Your task to perform on an android device: uninstall "Google Chrome" Image 0: 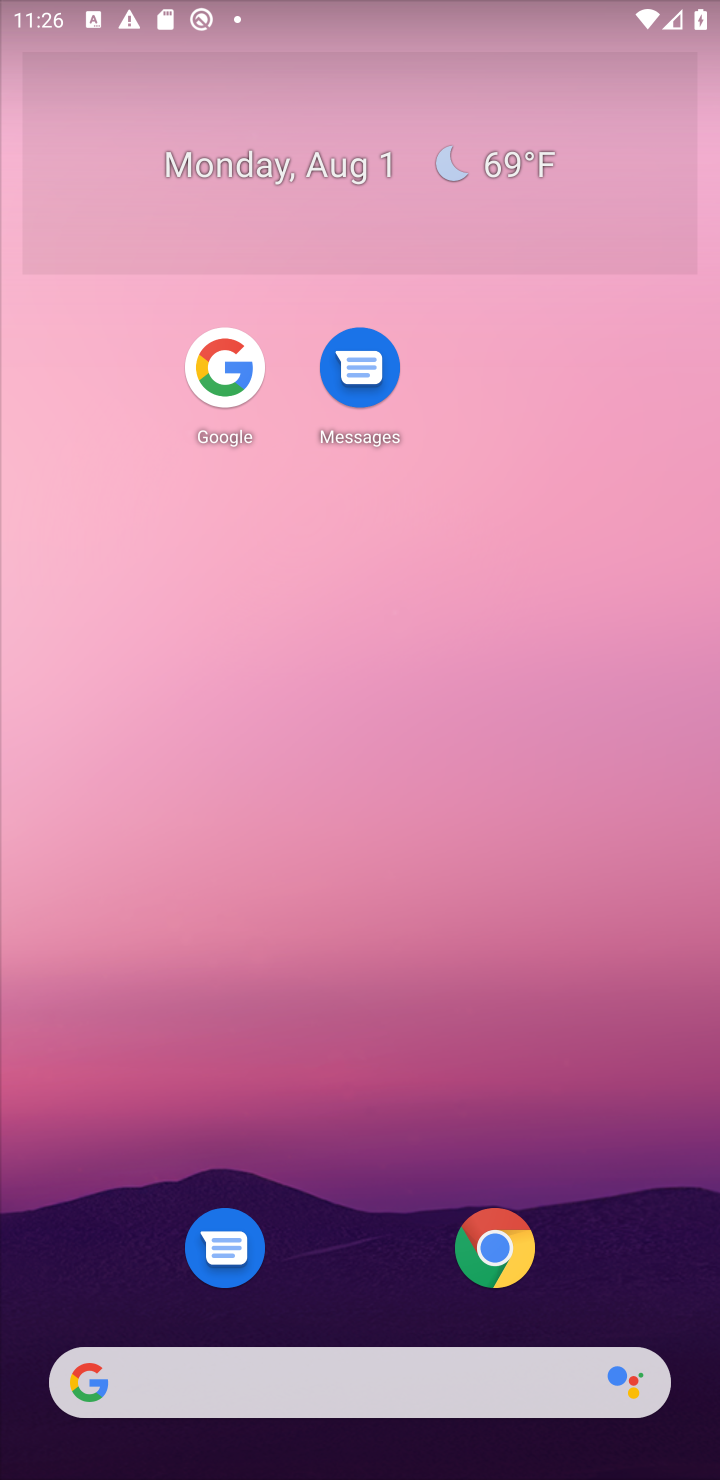
Step 0: drag from (357, 1221) to (555, 288)
Your task to perform on an android device: uninstall "Google Chrome" Image 1: 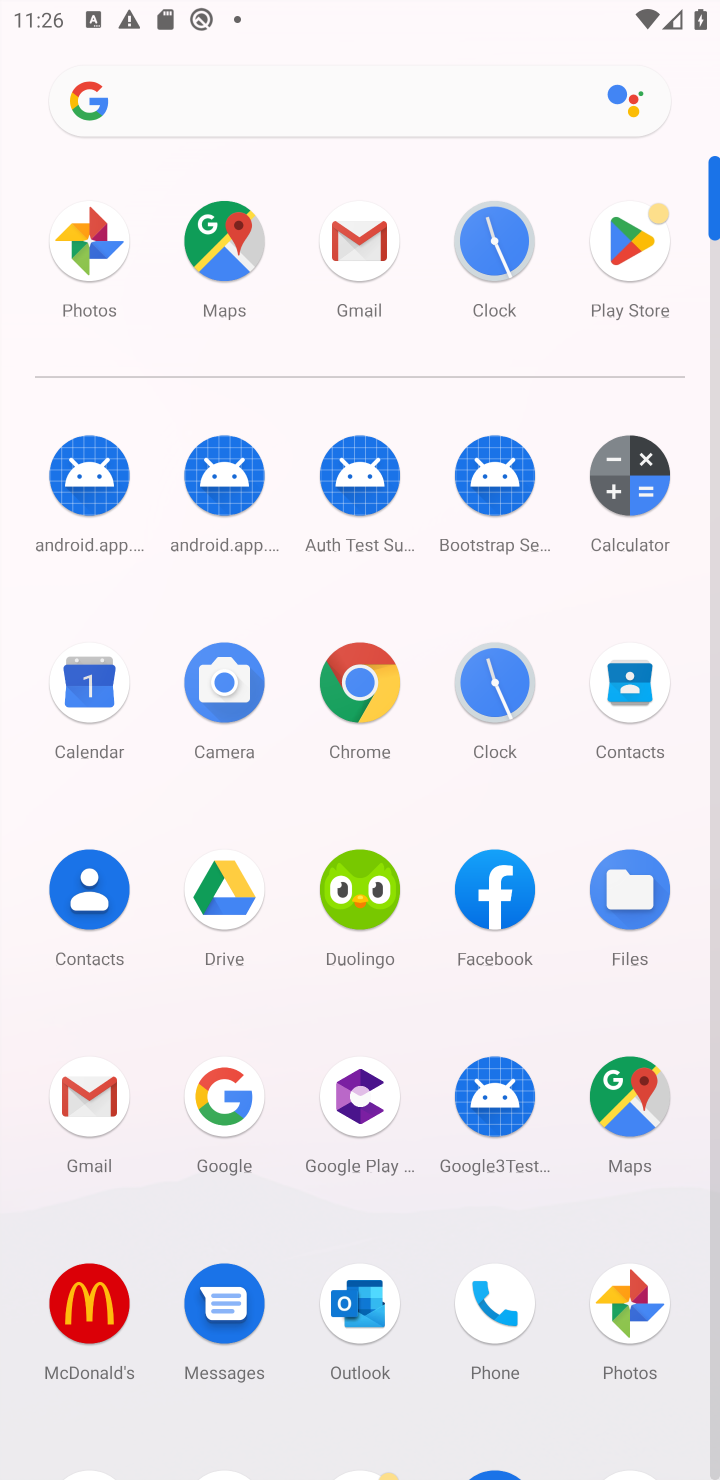
Step 1: drag from (299, 791) to (401, 305)
Your task to perform on an android device: uninstall "Google Chrome" Image 2: 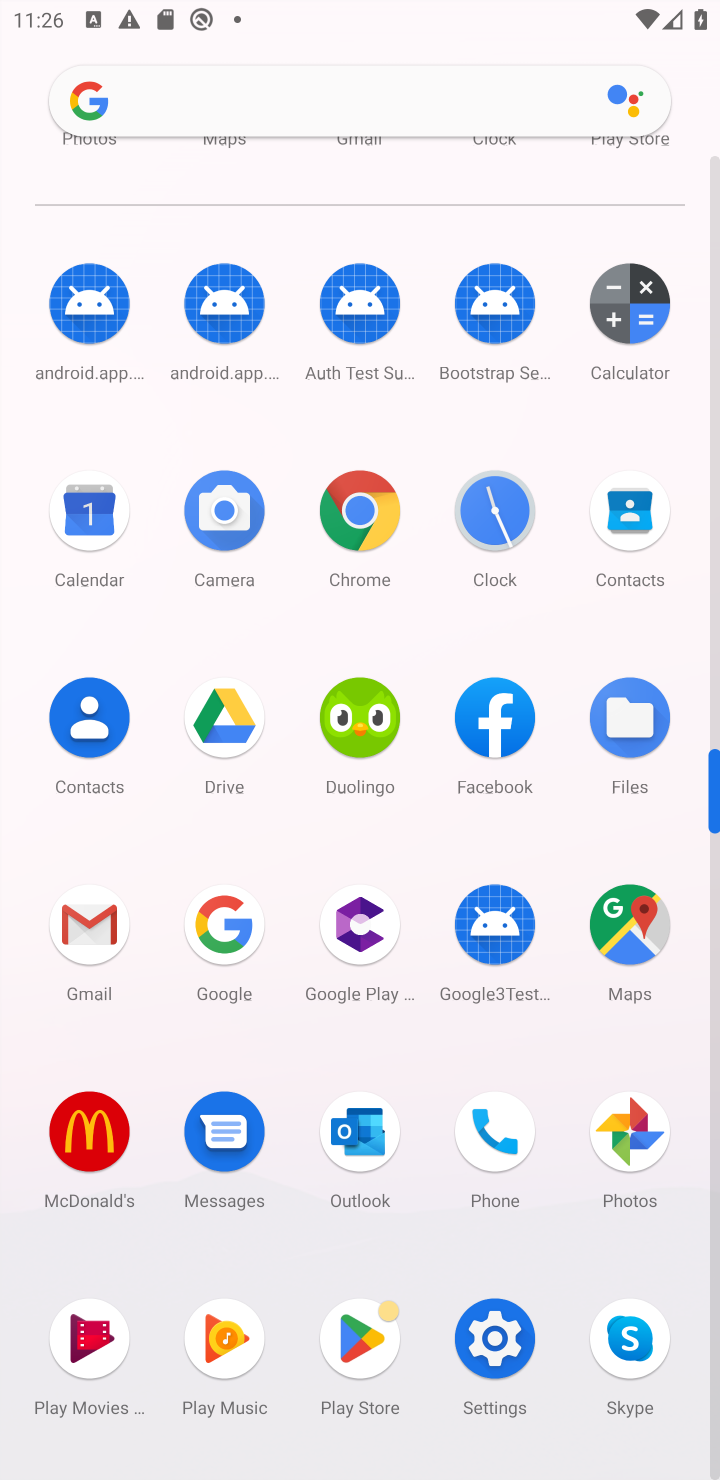
Step 2: click (378, 1327)
Your task to perform on an android device: uninstall "Google Chrome" Image 3: 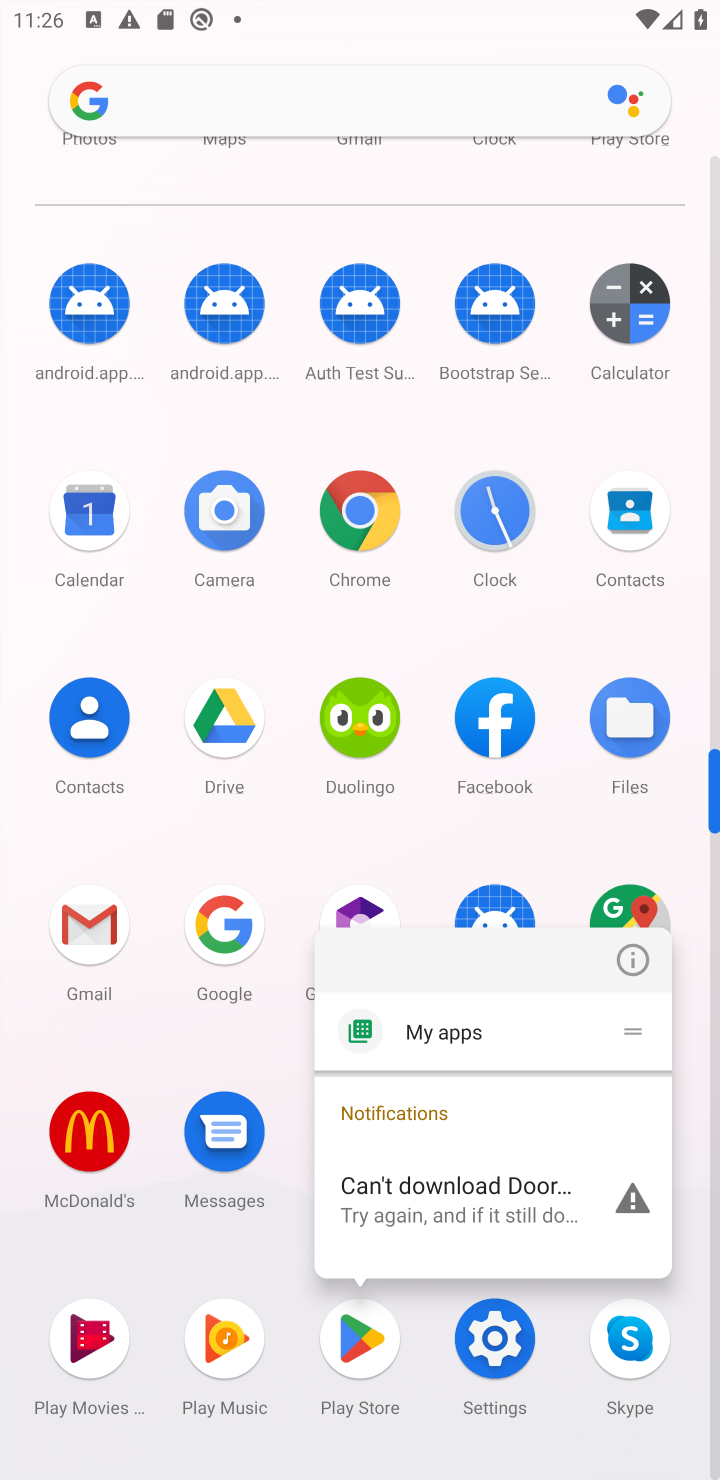
Step 3: click (369, 1334)
Your task to perform on an android device: uninstall "Google Chrome" Image 4: 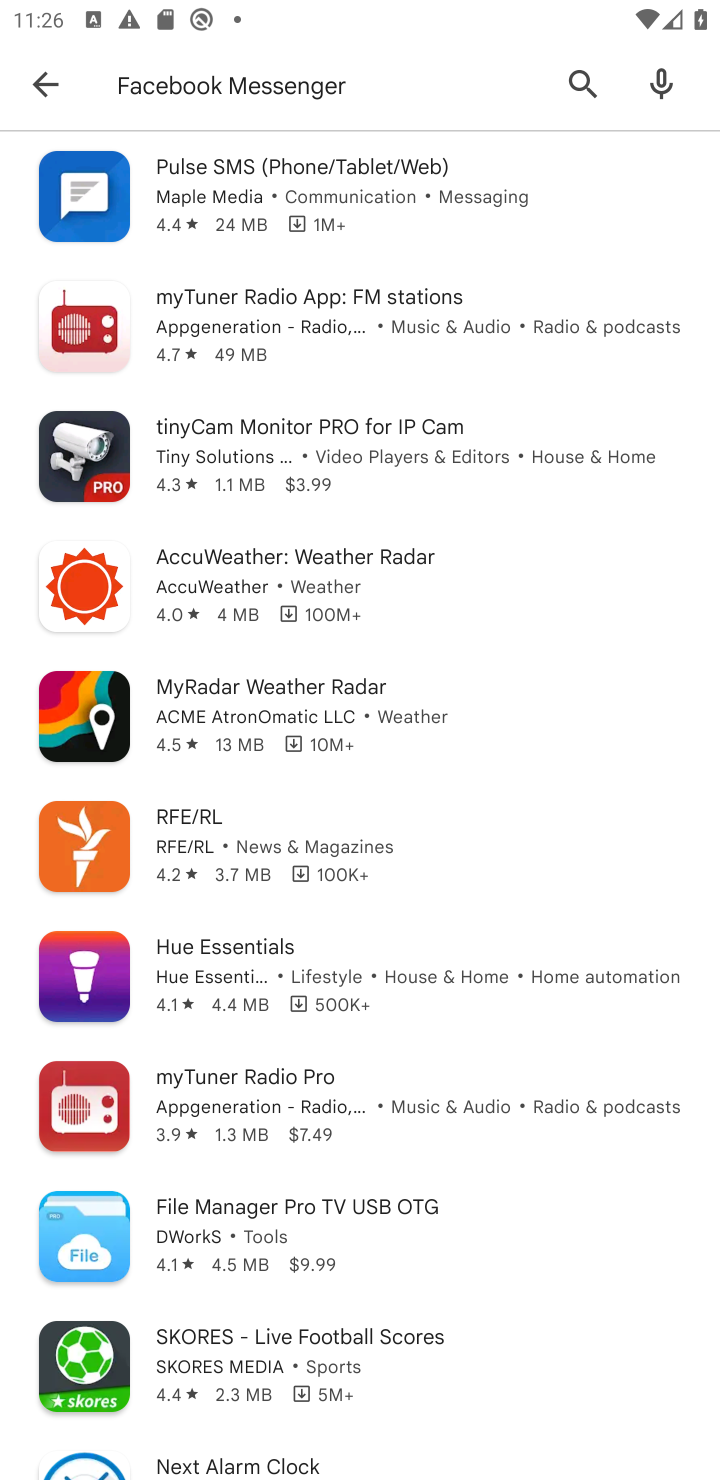
Step 4: click (440, 70)
Your task to perform on an android device: uninstall "Google Chrome" Image 5: 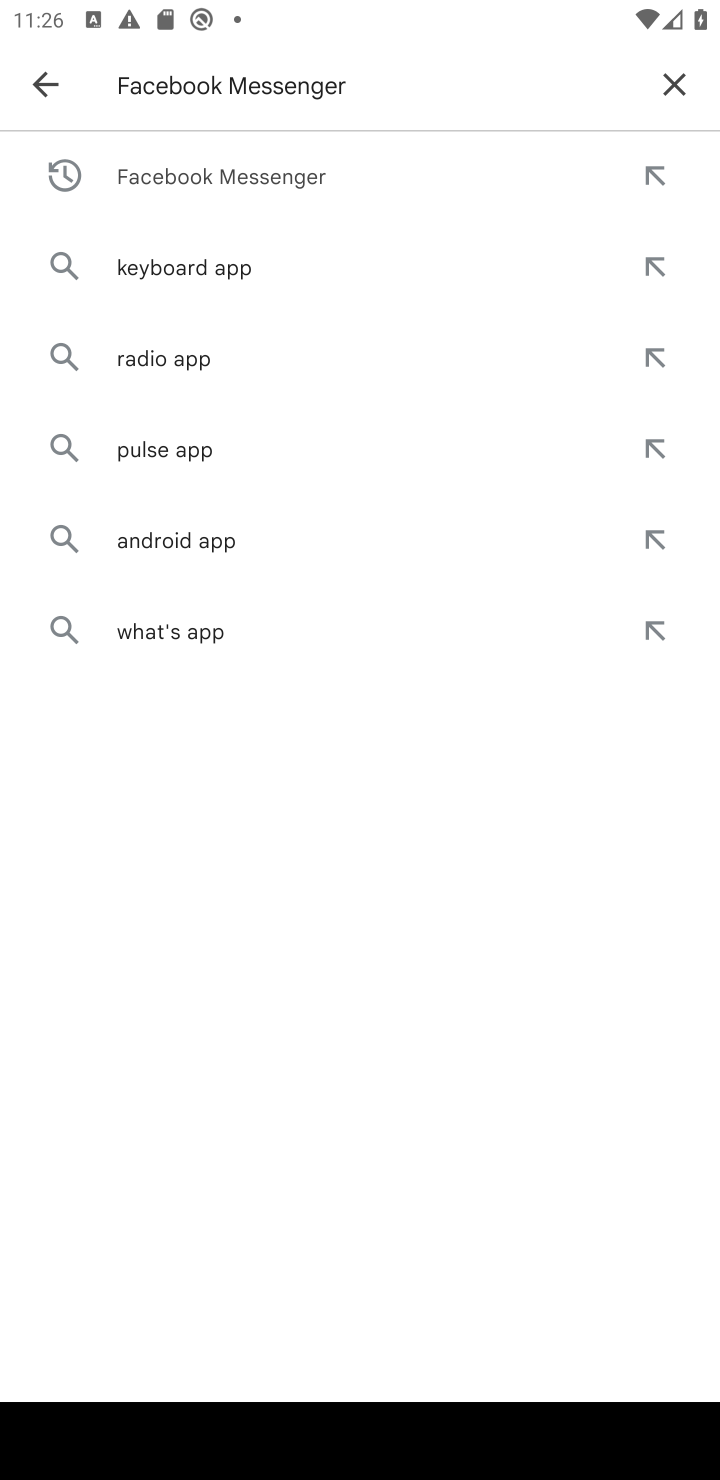
Step 5: click (677, 78)
Your task to perform on an android device: uninstall "Google Chrome" Image 6: 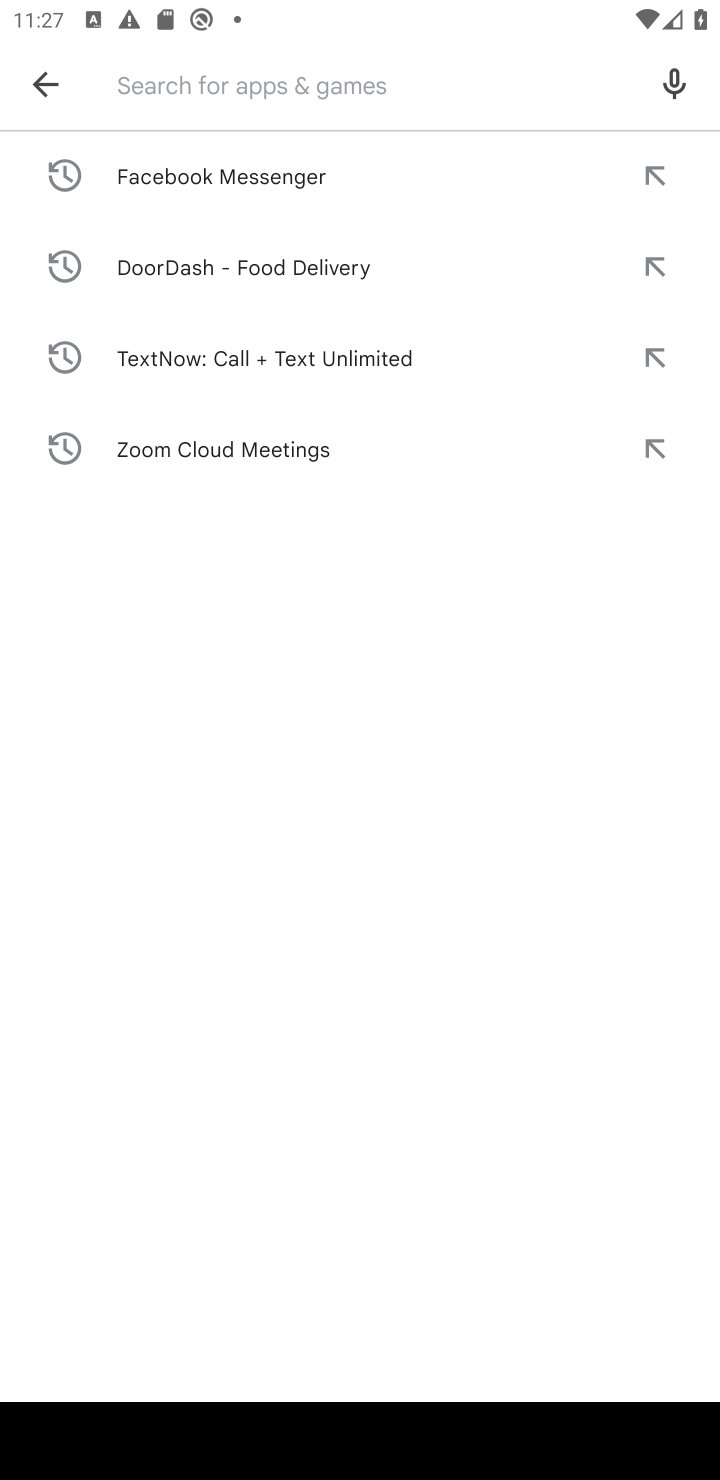
Step 6: type "Google Chrome"
Your task to perform on an android device: uninstall "Google Chrome" Image 7: 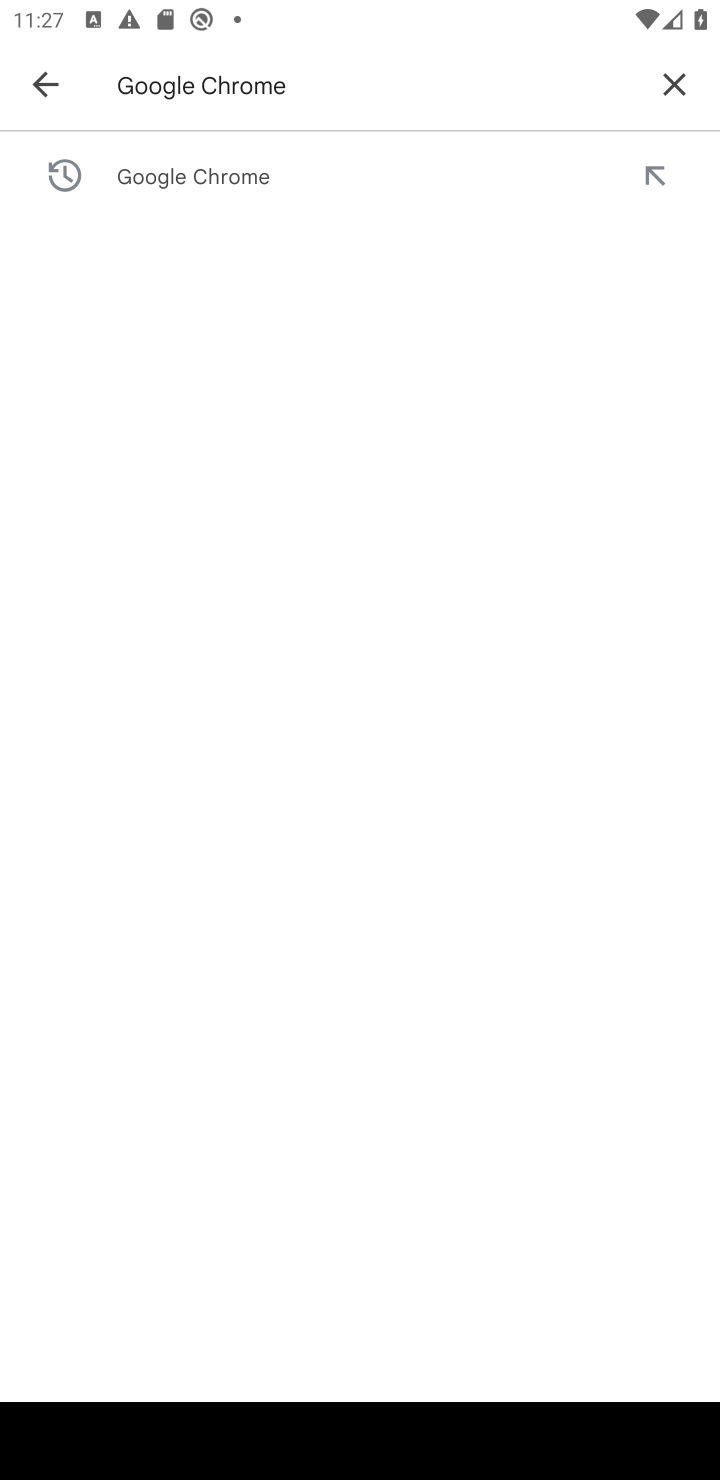
Step 7: press enter
Your task to perform on an android device: uninstall "Google Chrome" Image 8: 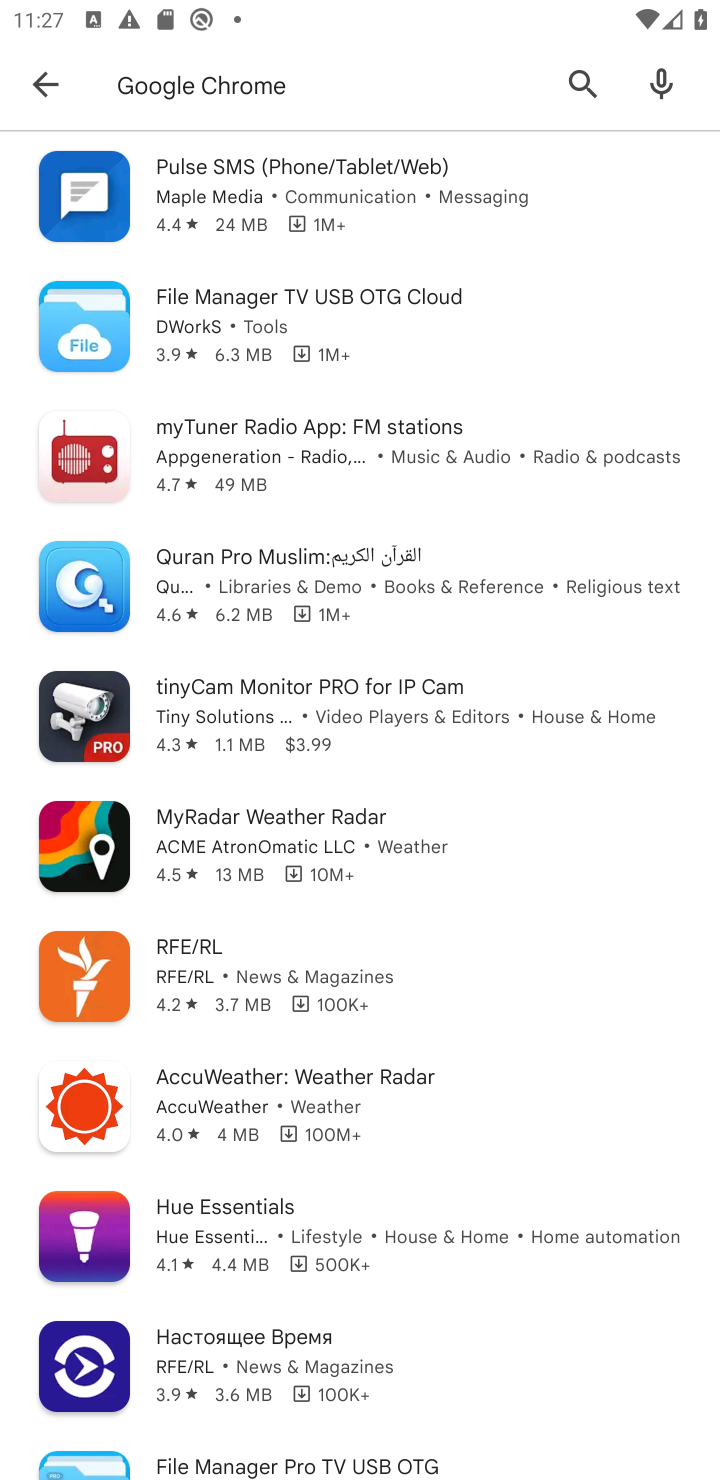
Step 8: task complete